Your task to perform on an android device: Go to ESPN.com Image 0: 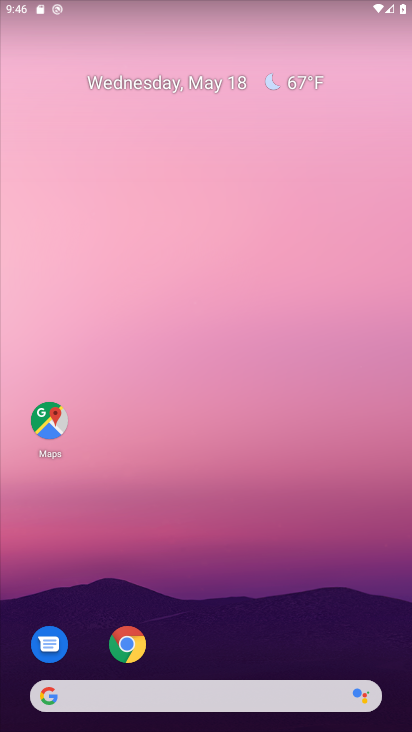
Step 0: click (128, 647)
Your task to perform on an android device: Go to ESPN.com Image 1: 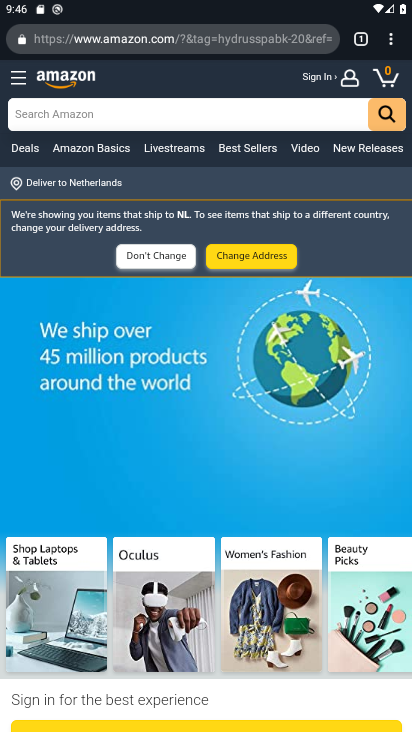
Step 1: click (270, 38)
Your task to perform on an android device: Go to ESPN.com Image 2: 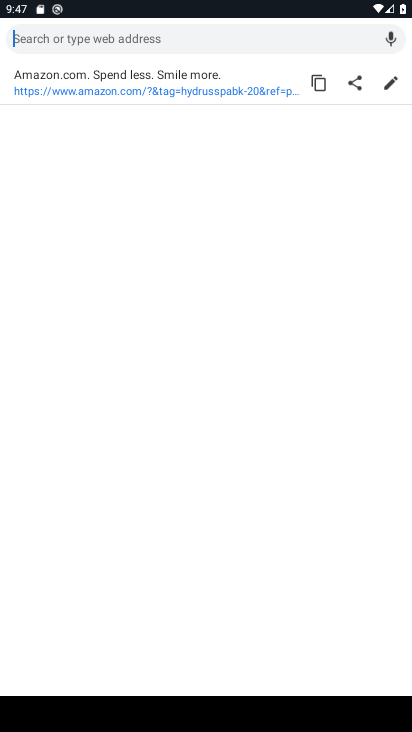
Step 2: type "ESPN.com"
Your task to perform on an android device: Go to ESPN.com Image 3: 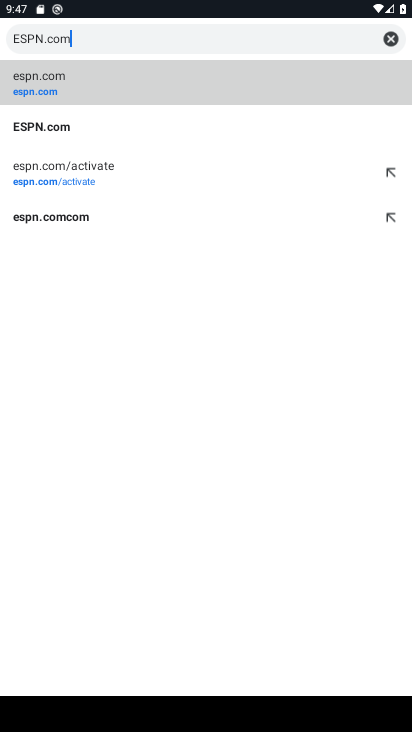
Step 3: type ""
Your task to perform on an android device: Go to ESPN.com Image 4: 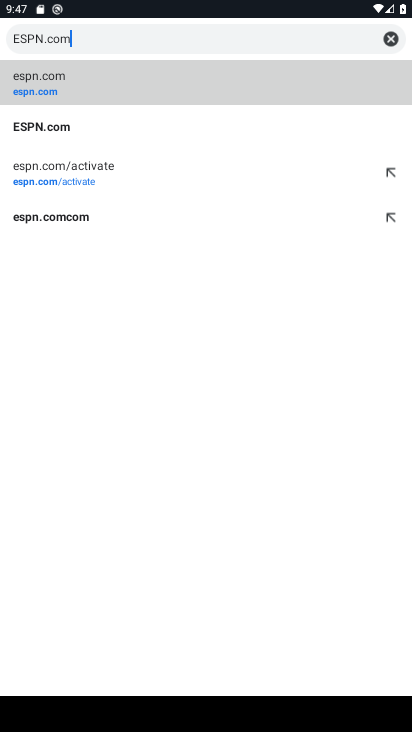
Step 4: click (56, 129)
Your task to perform on an android device: Go to ESPN.com Image 5: 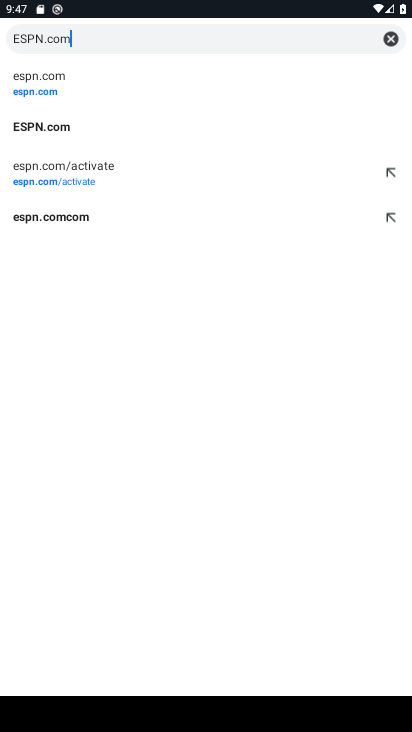
Step 5: click (36, 126)
Your task to perform on an android device: Go to ESPN.com Image 6: 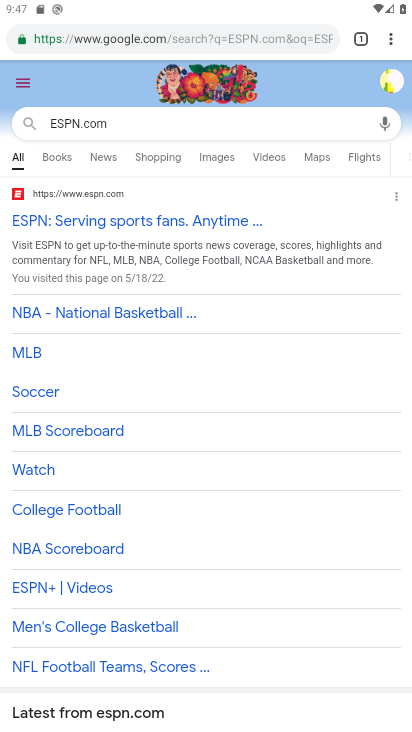
Step 6: click (116, 229)
Your task to perform on an android device: Go to ESPN.com Image 7: 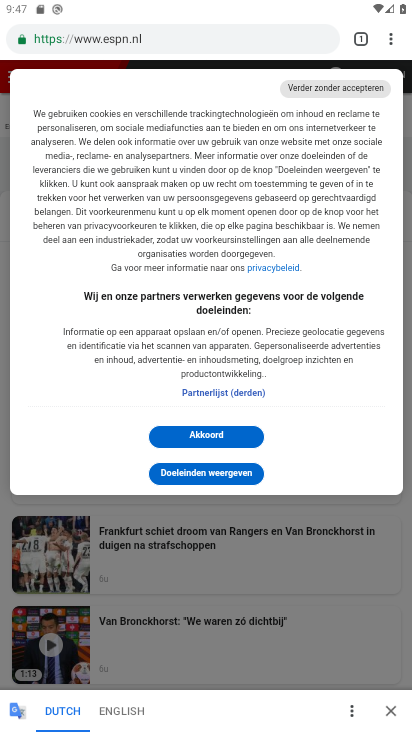
Step 7: click (192, 439)
Your task to perform on an android device: Go to ESPN.com Image 8: 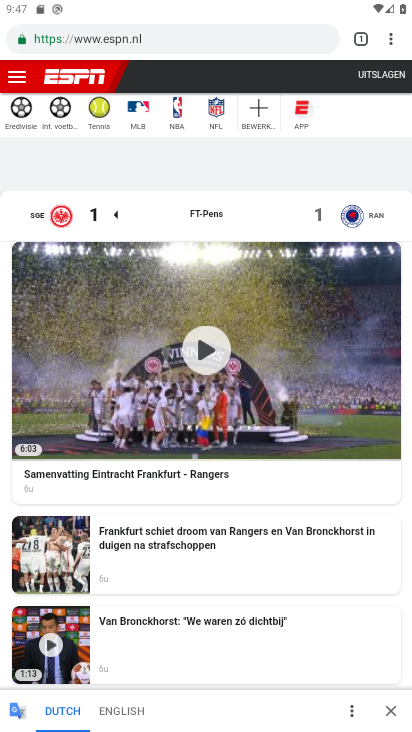
Step 8: task complete